Your task to perform on an android device: Go to Reddit.com Image 0: 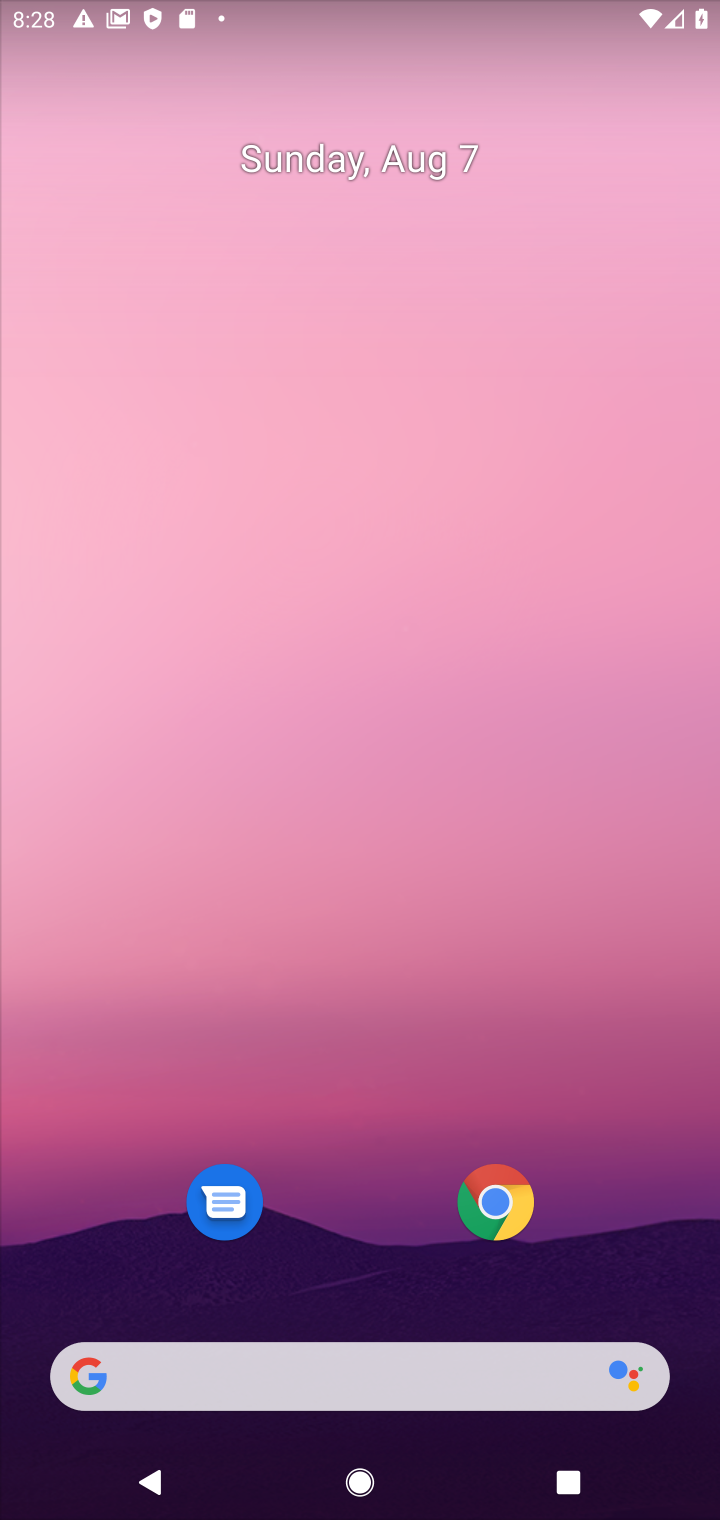
Step 0: click (509, 1182)
Your task to perform on an android device: Go to Reddit.com Image 1: 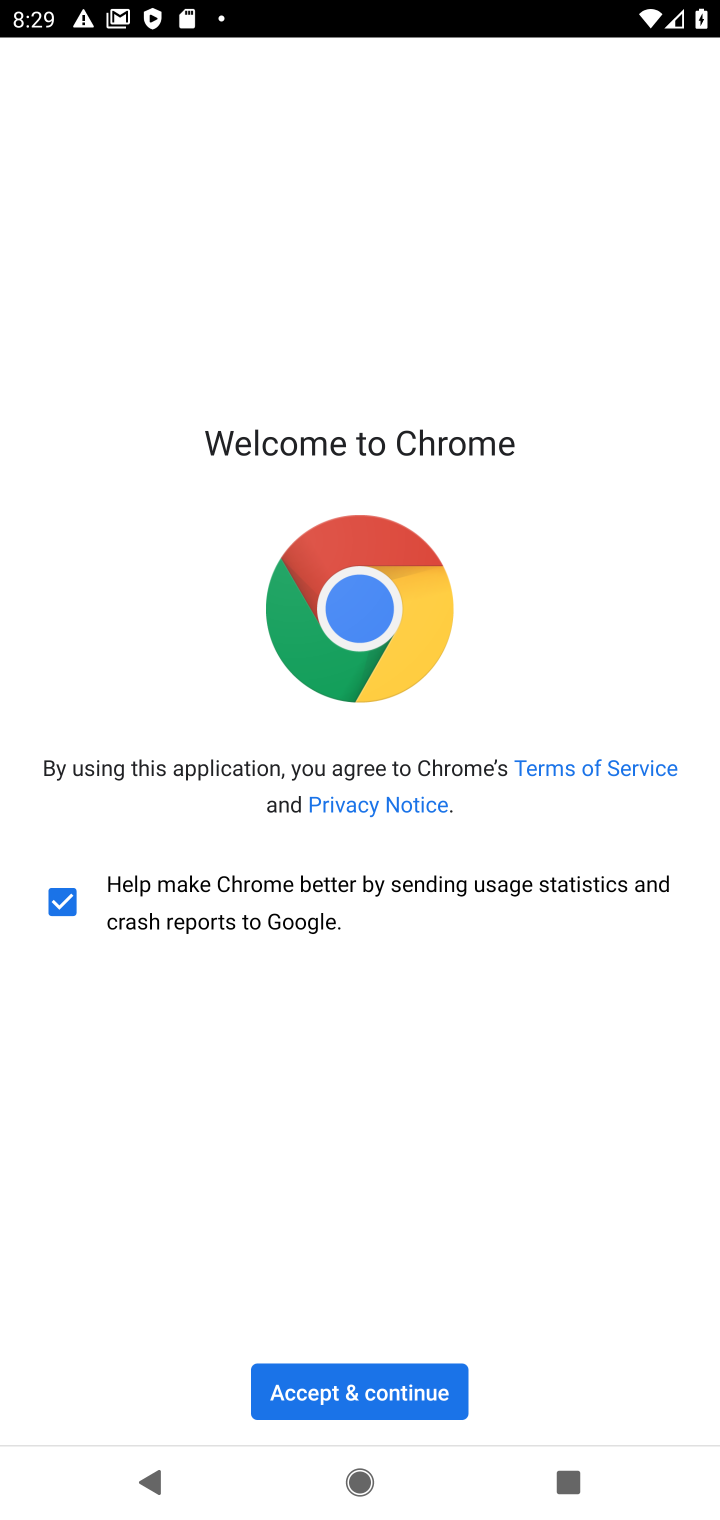
Step 1: click (297, 1395)
Your task to perform on an android device: Go to Reddit.com Image 2: 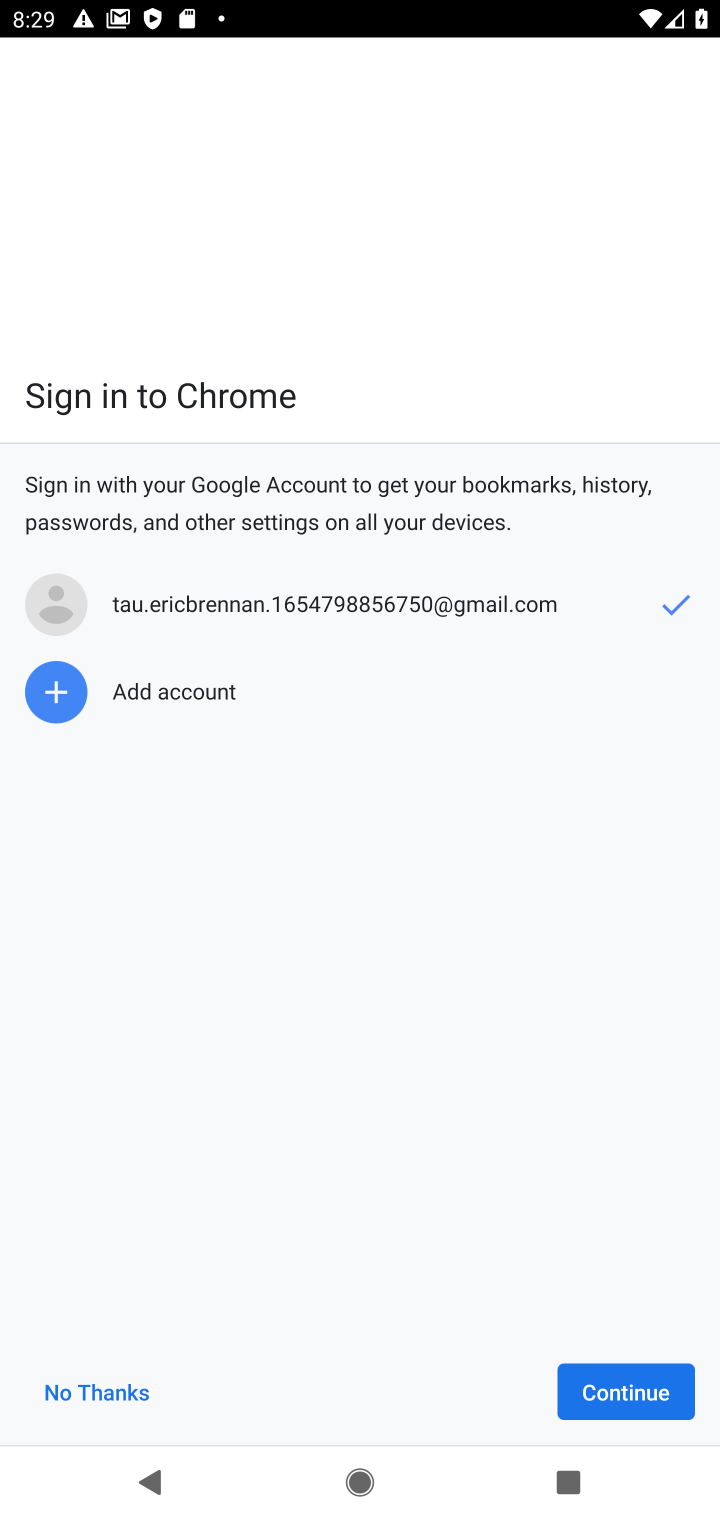
Step 2: click (606, 1400)
Your task to perform on an android device: Go to Reddit.com Image 3: 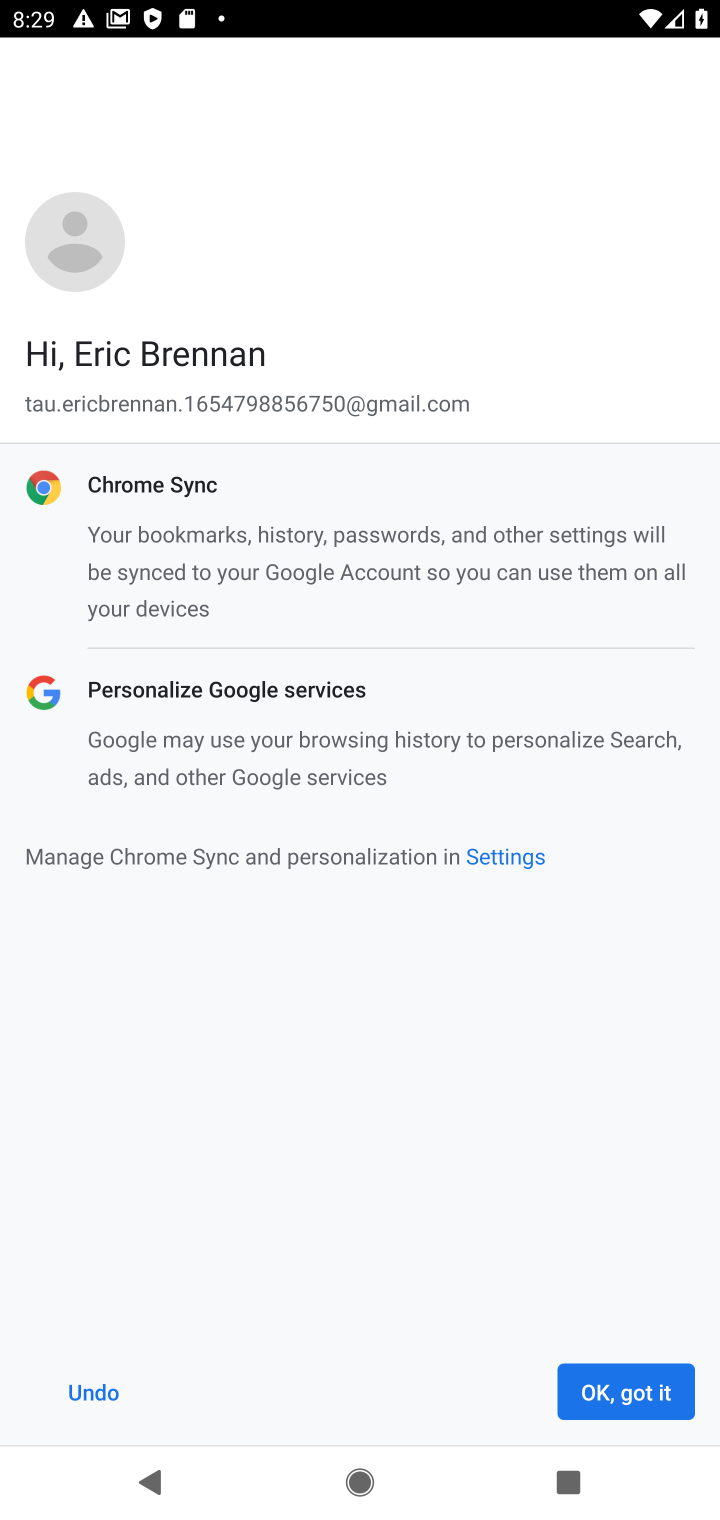
Step 3: click (606, 1400)
Your task to perform on an android device: Go to Reddit.com Image 4: 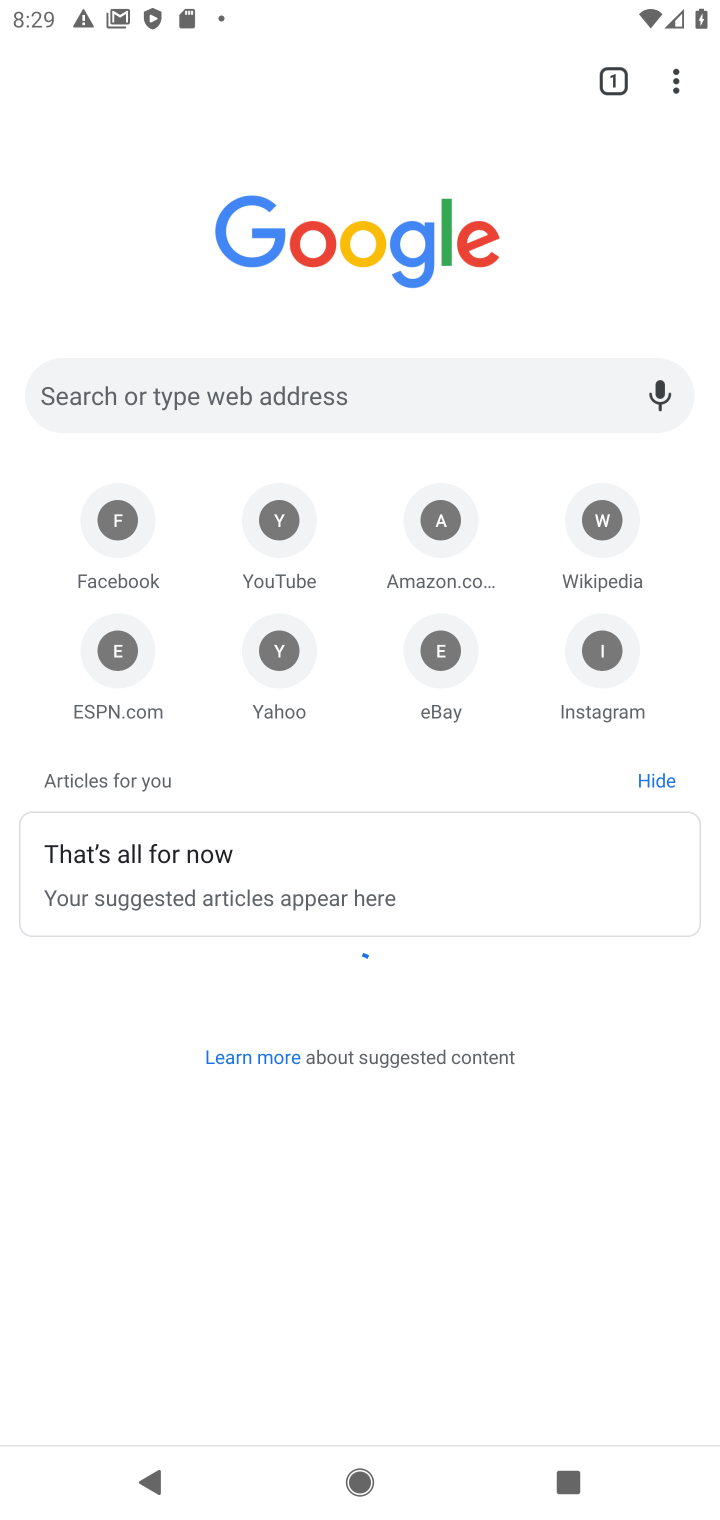
Step 4: click (484, 369)
Your task to perform on an android device: Go to Reddit.com Image 5: 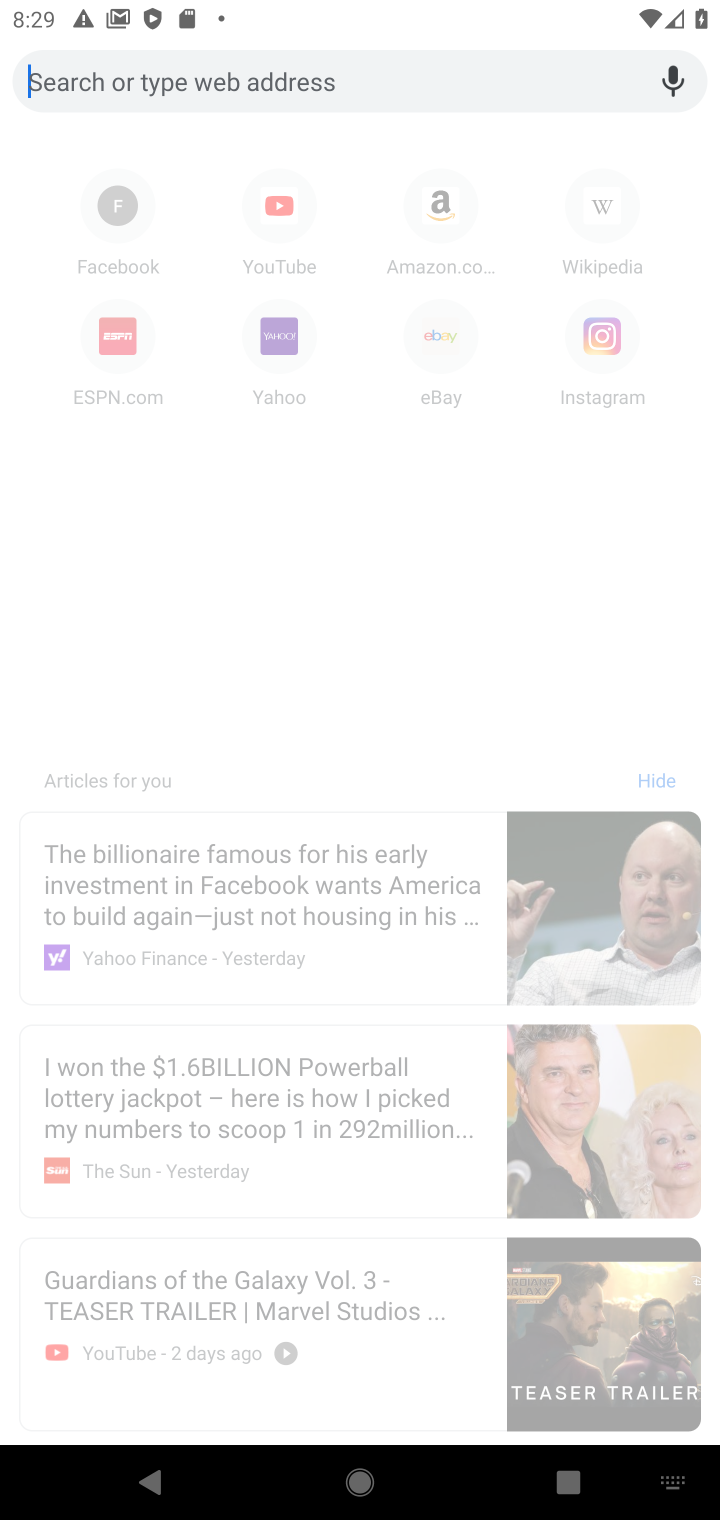
Step 5: type "reddit.com"
Your task to perform on an android device: Go to Reddit.com Image 6: 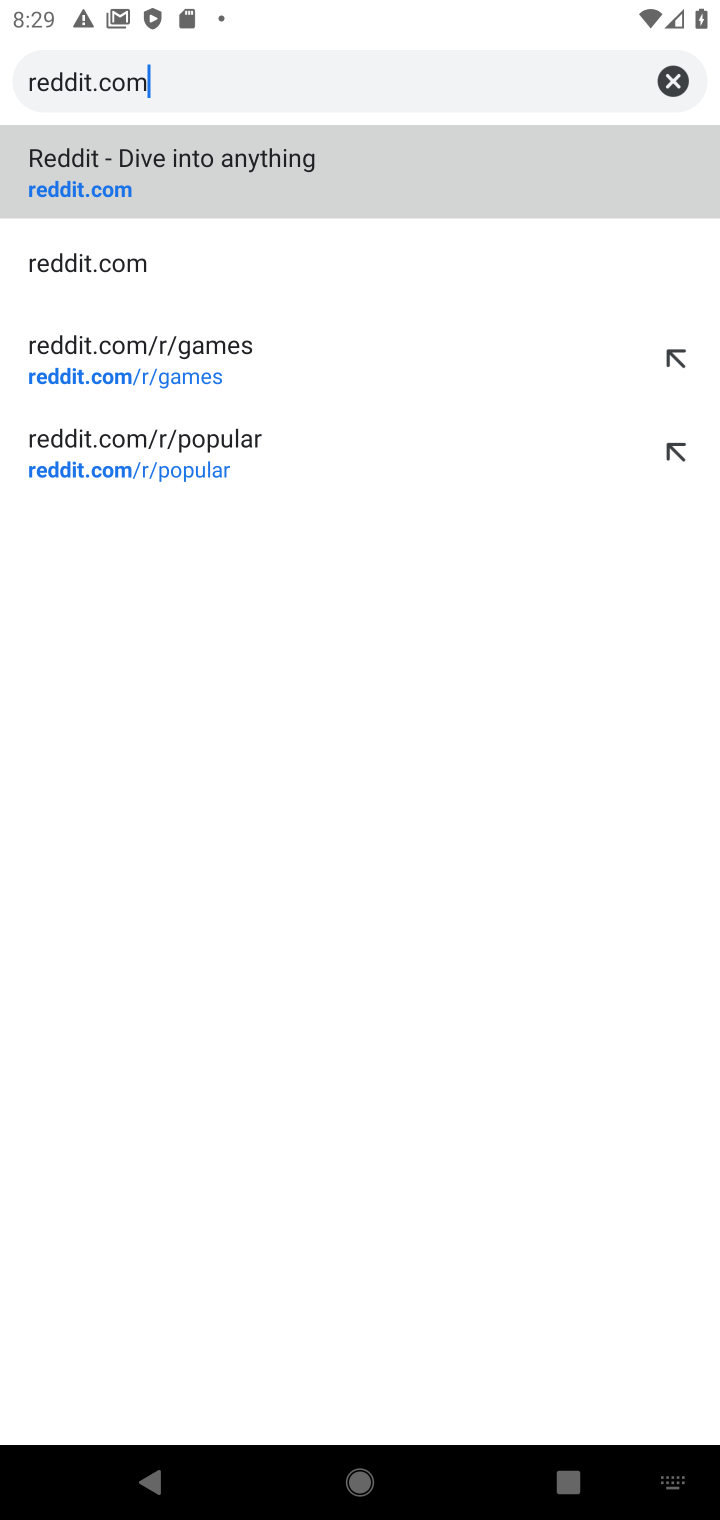
Step 6: click (211, 143)
Your task to perform on an android device: Go to Reddit.com Image 7: 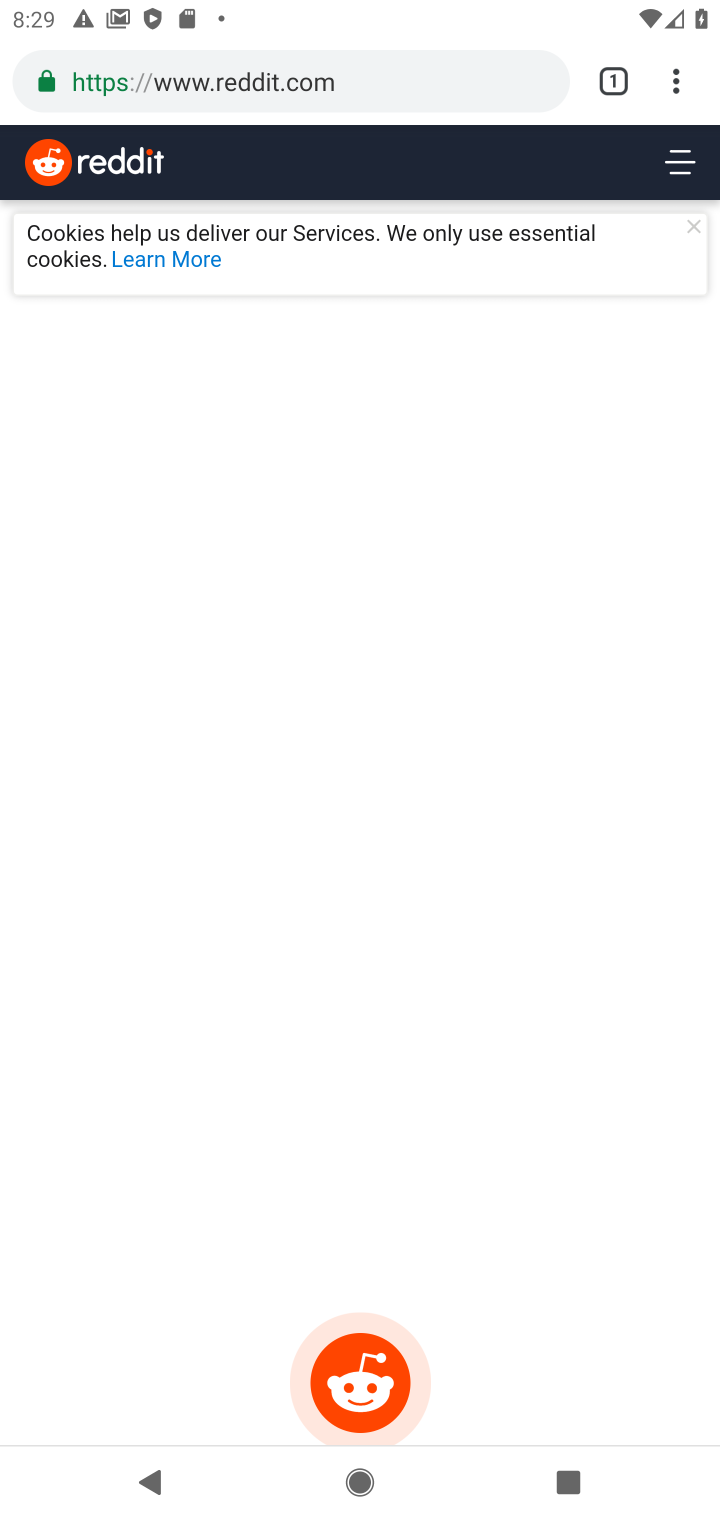
Step 7: task complete